Your task to perform on an android device: What is the recent news? Image 0: 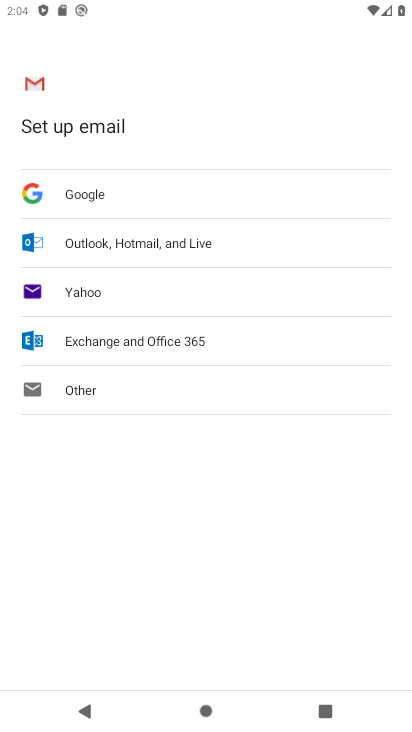
Step 0: press home button
Your task to perform on an android device: What is the recent news? Image 1: 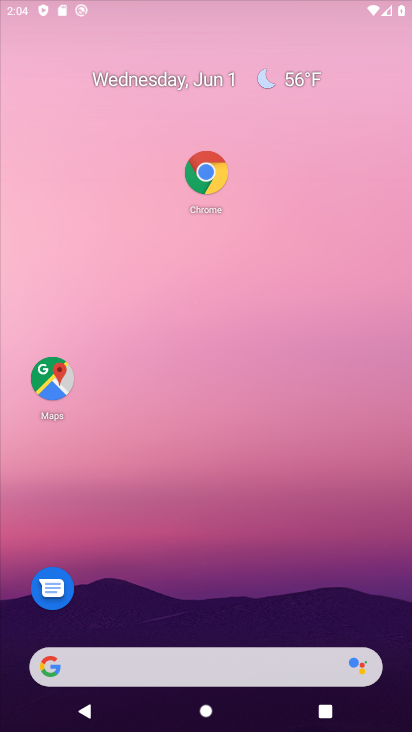
Step 1: drag from (204, 547) to (195, 31)
Your task to perform on an android device: What is the recent news? Image 2: 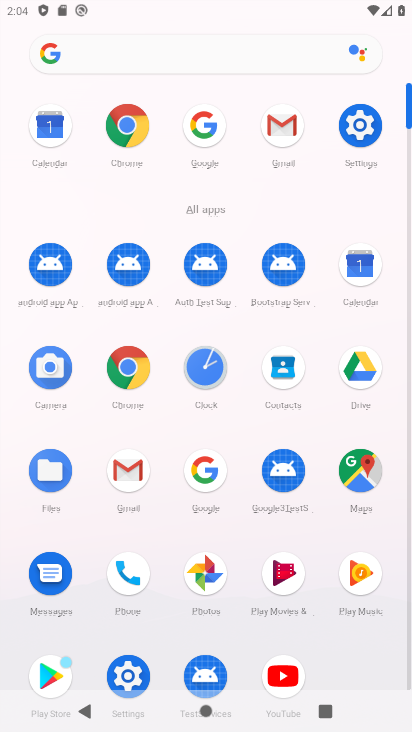
Step 2: click (210, 468)
Your task to perform on an android device: What is the recent news? Image 3: 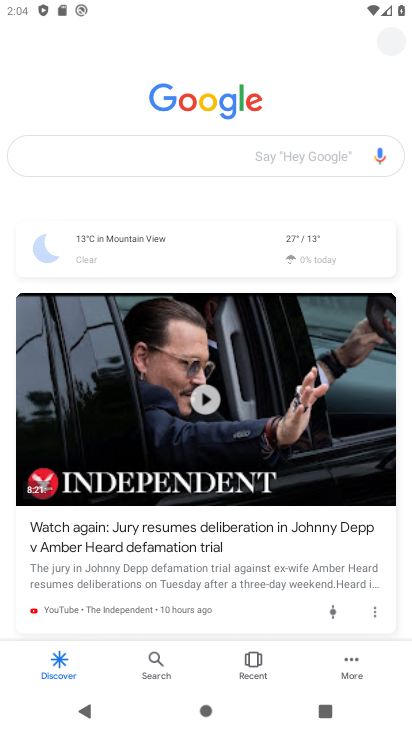
Step 3: click (162, 155)
Your task to perform on an android device: What is the recent news? Image 4: 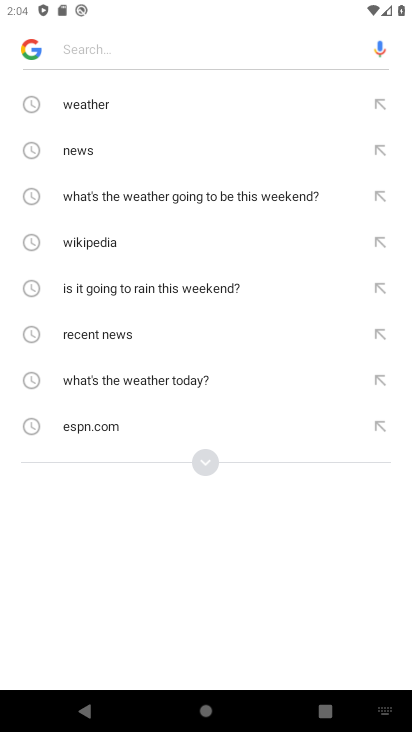
Step 4: click (113, 339)
Your task to perform on an android device: What is the recent news? Image 5: 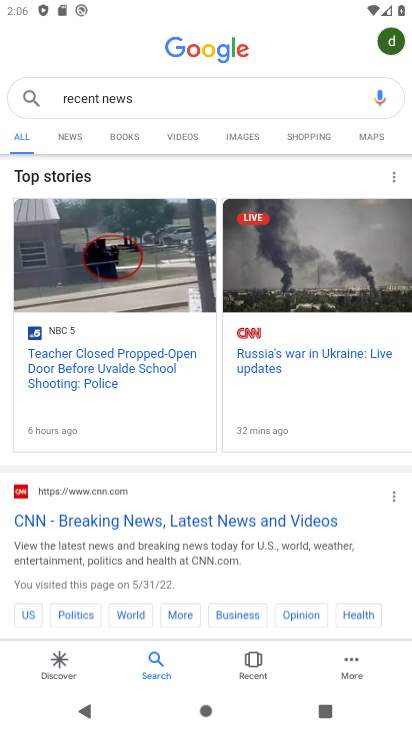
Step 5: task complete